Your task to perform on an android device: make emails show in primary in the gmail app Image 0: 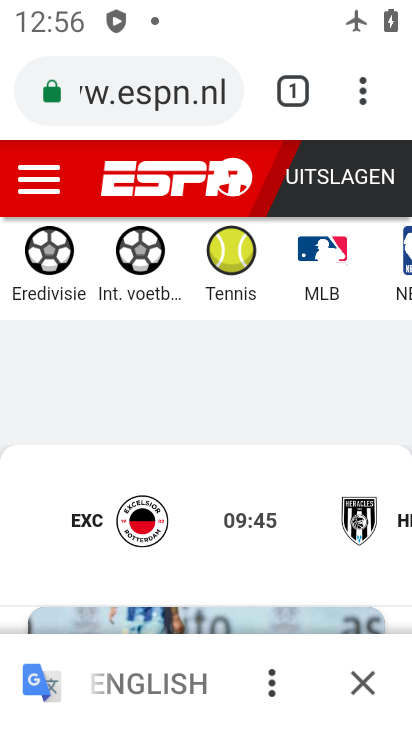
Step 0: press home button
Your task to perform on an android device: make emails show in primary in the gmail app Image 1: 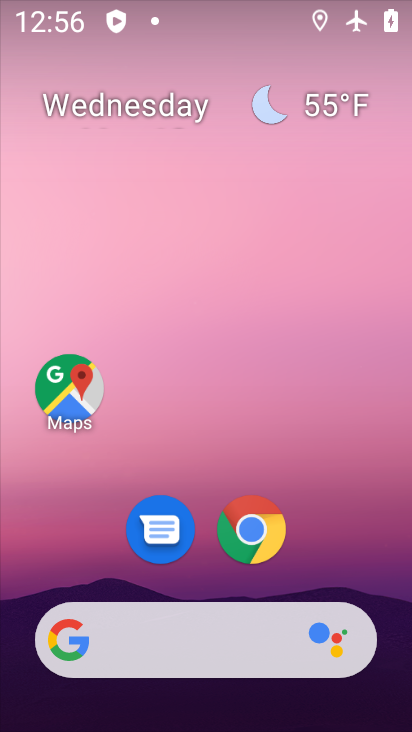
Step 1: drag from (216, 706) to (193, 151)
Your task to perform on an android device: make emails show in primary in the gmail app Image 2: 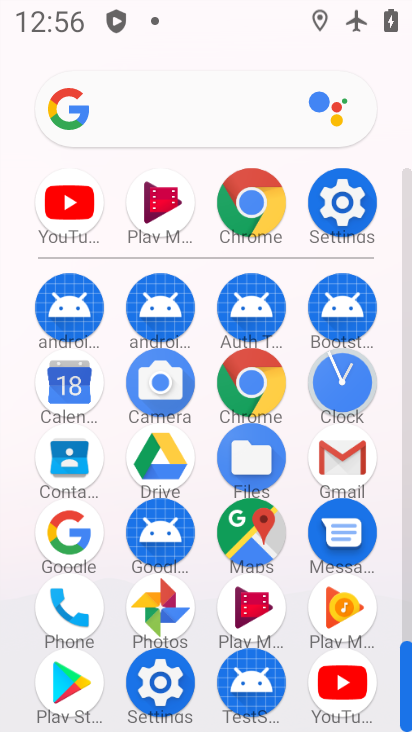
Step 2: click (340, 458)
Your task to perform on an android device: make emails show in primary in the gmail app Image 3: 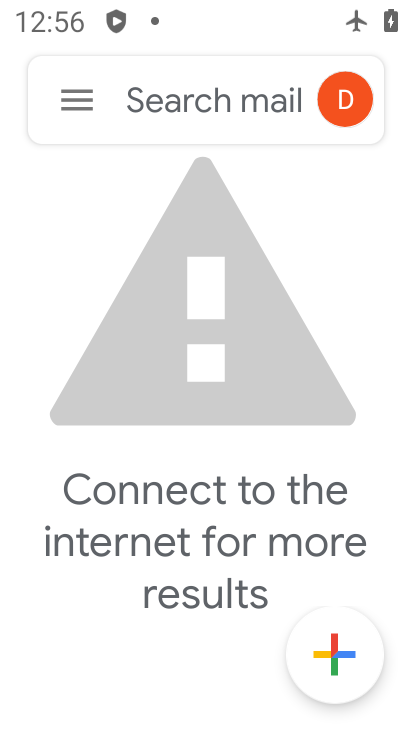
Step 3: click (76, 104)
Your task to perform on an android device: make emails show in primary in the gmail app Image 4: 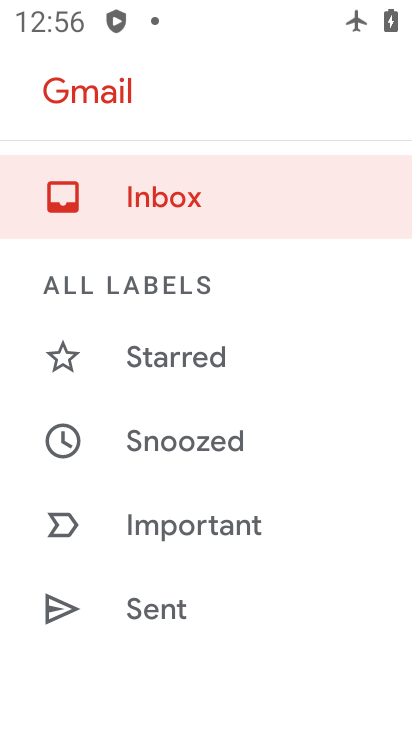
Step 4: drag from (163, 644) to (185, 250)
Your task to perform on an android device: make emails show in primary in the gmail app Image 5: 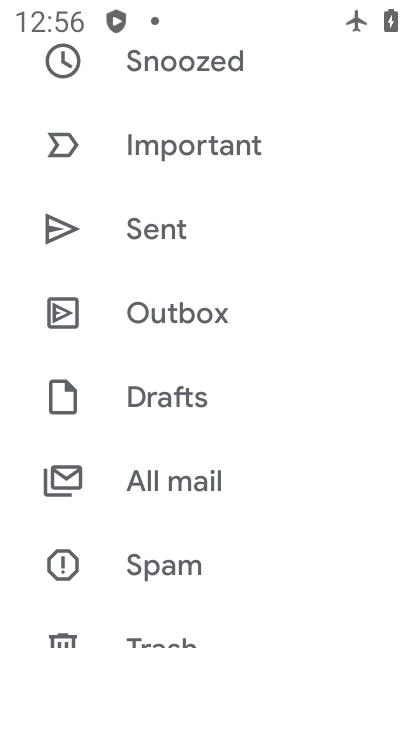
Step 5: drag from (217, 629) to (220, 267)
Your task to perform on an android device: make emails show in primary in the gmail app Image 6: 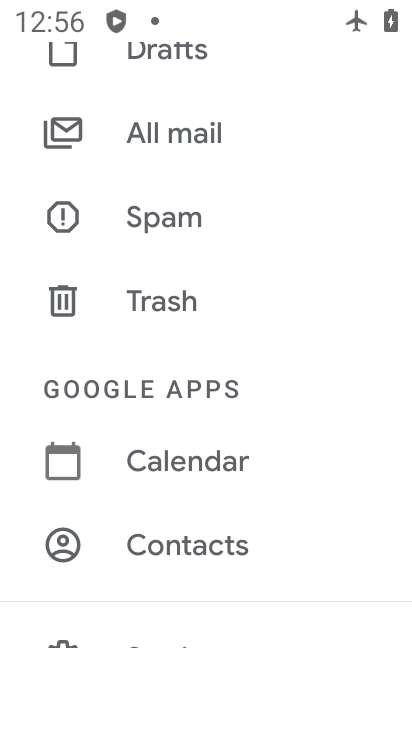
Step 6: drag from (209, 614) to (217, 254)
Your task to perform on an android device: make emails show in primary in the gmail app Image 7: 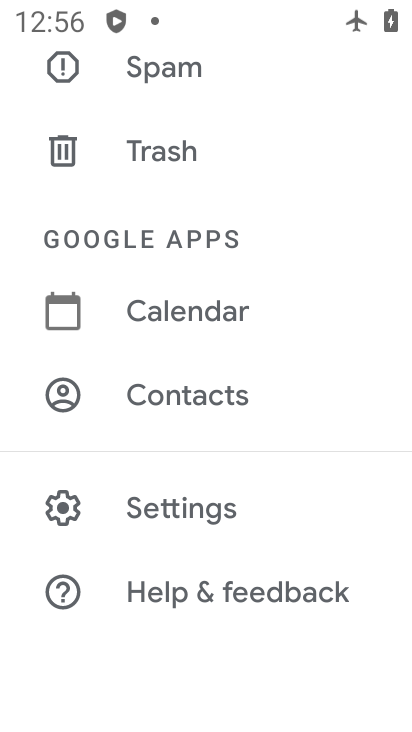
Step 7: click (179, 507)
Your task to perform on an android device: make emails show in primary in the gmail app Image 8: 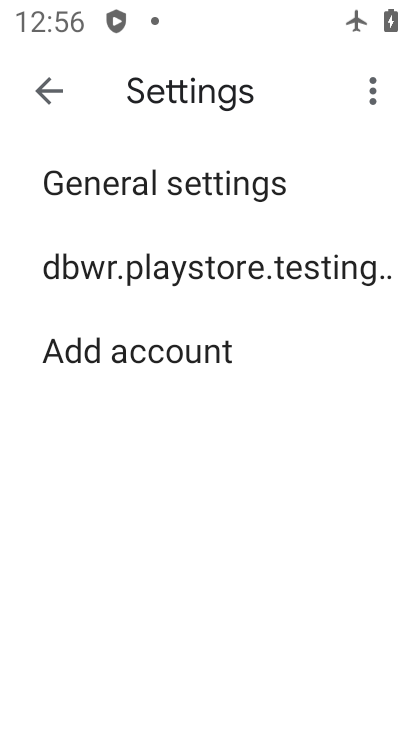
Step 8: click (184, 266)
Your task to perform on an android device: make emails show in primary in the gmail app Image 9: 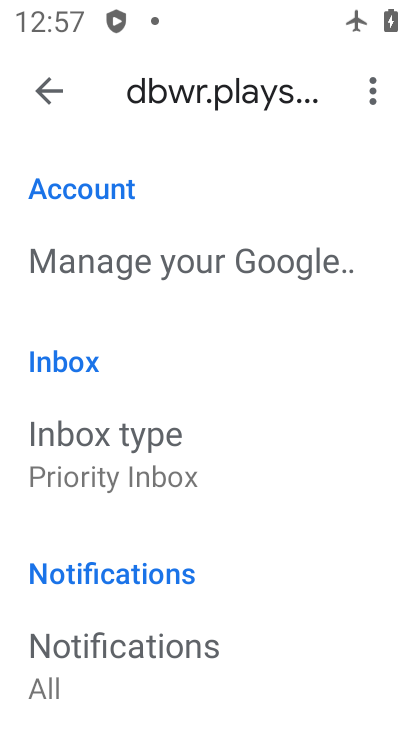
Step 9: drag from (166, 645) to (183, 361)
Your task to perform on an android device: make emails show in primary in the gmail app Image 10: 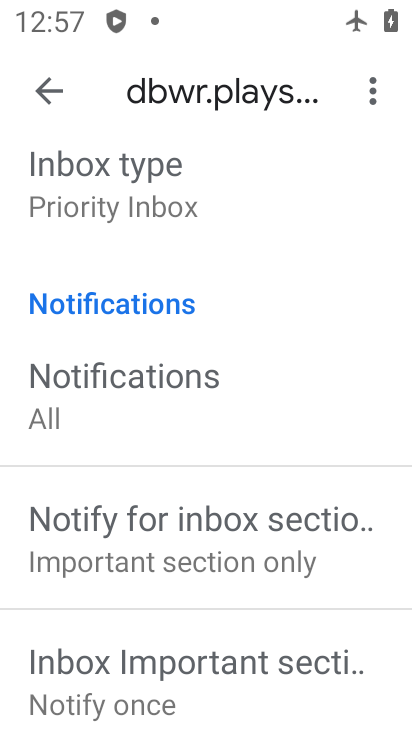
Step 10: drag from (212, 217) to (237, 401)
Your task to perform on an android device: make emails show in primary in the gmail app Image 11: 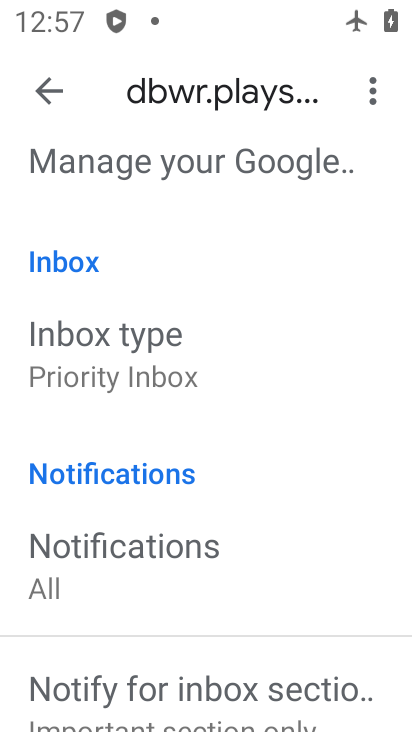
Step 11: click (129, 343)
Your task to perform on an android device: make emails show in primary in the gmail app Image 12: 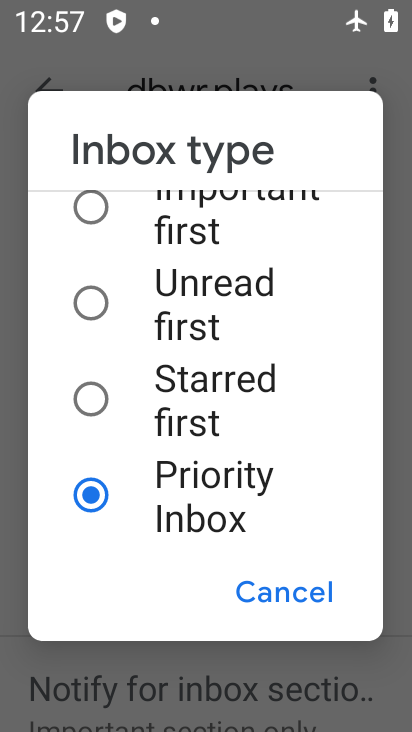
Step 12: drag from (139, 211) to (147, 499)
Your task to perform on an android device: make emails show in primary in the gmail app Image 13: 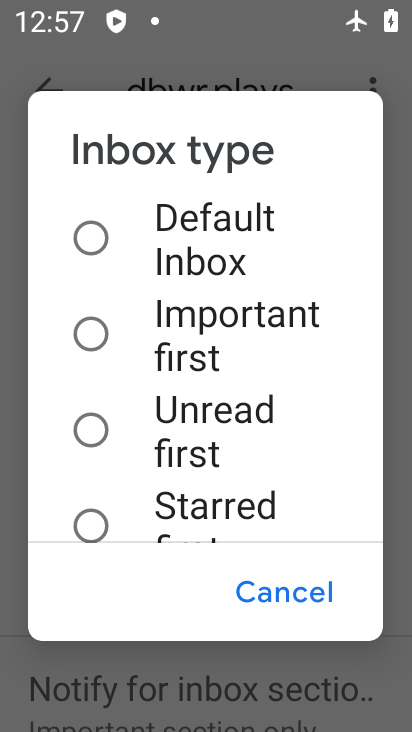
Step 13: click (85, 228)
Your task to perform on an android device: make emails show in primary in the gmail app Image 14: 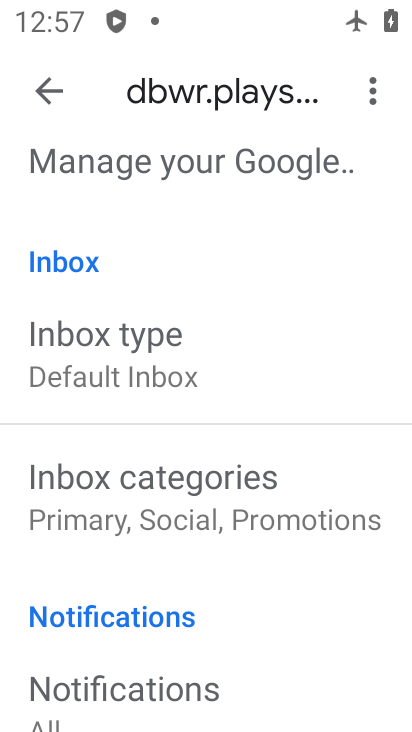
Step 14: click (181, 501)
Your task to perform on an android device: make emails show in primary in the gmail app Image 15: 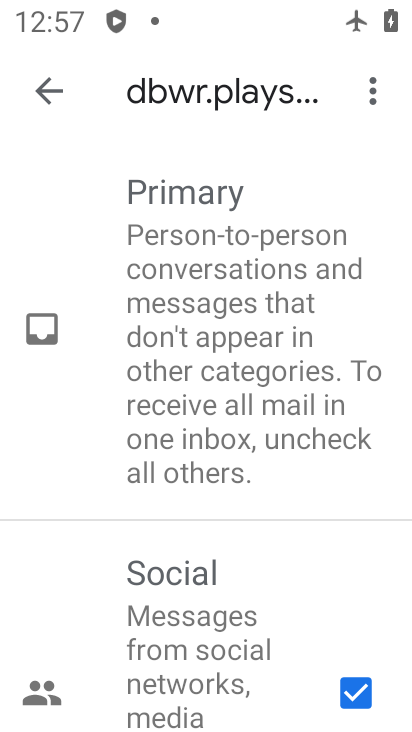
Step 15: drag from (182, 676) to (232, 210)
Your task to perform on an android device: make emails show in primary in the gmail app Image 16: 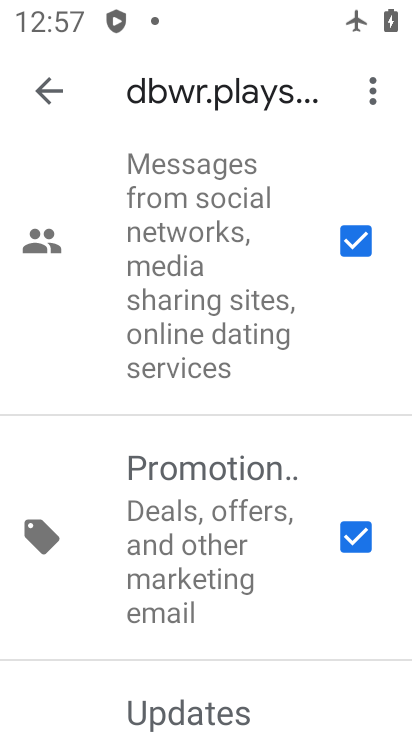
Step 16: drag from (299, 700) to (299, 413)
Your task to perform on an android device: make emails show in primary in the gmail app Image 17: 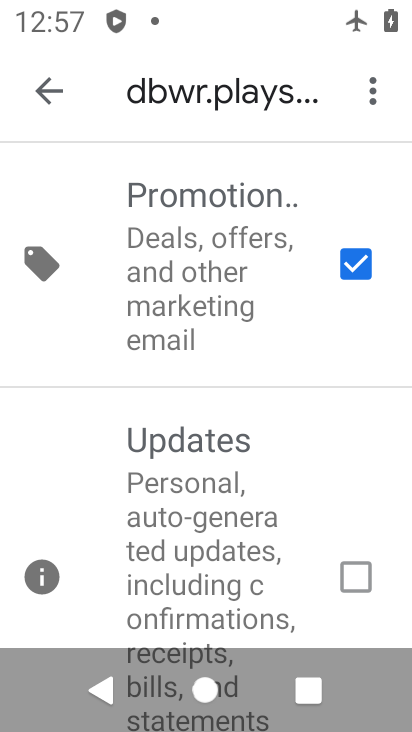
Step 17: click (354, 262)
Your task to perform on an android device: make emails show in primary in the gmail app Image 18: 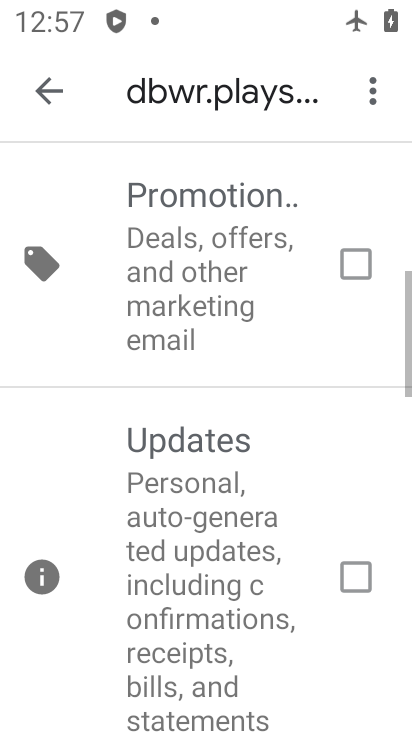
Step 18: drag from (184, 194) to (206, 613)
Your task to perform on an android device: make emails show in primary in the gmail app Image 19: 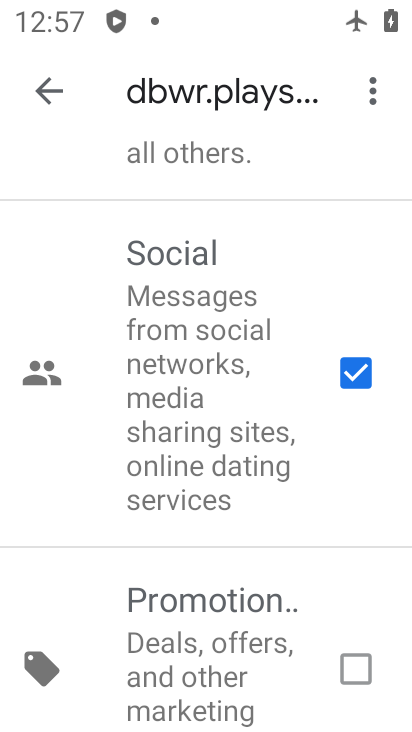
Step 19: click (359, 373)
Your task to perform on an android device: make emails show in primary in the gmail app Image 20: 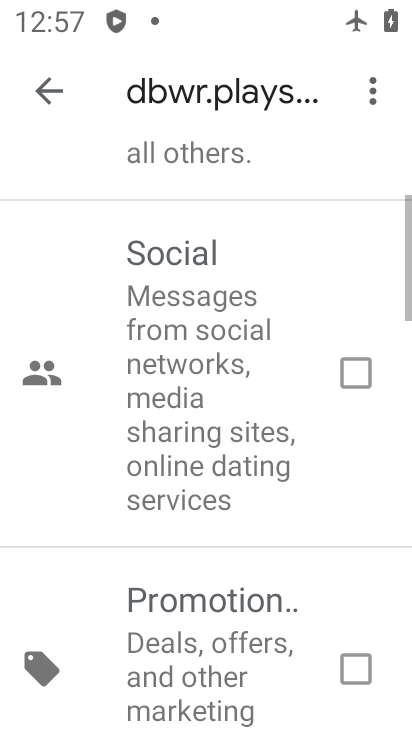
Step 20: drag from (262, 237) to (255, 490)
Your task to perform on an android device: make emails show in primary in the gmail app Image 21: 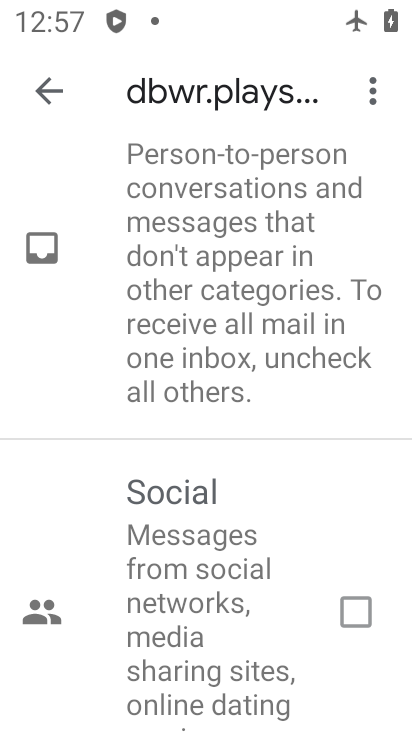
Step 21: click (47, 89)
Your task to perform on an android device: make emails show in primary in the gmail app Image 22: 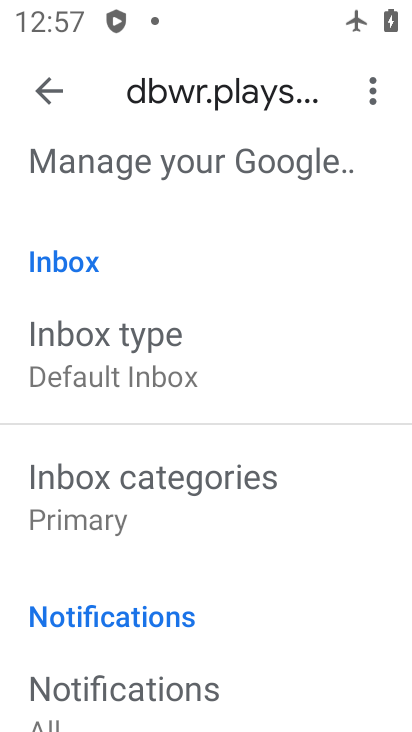
Step 22: task complete